Your task to perform on an android device: turn off location history Image 0: 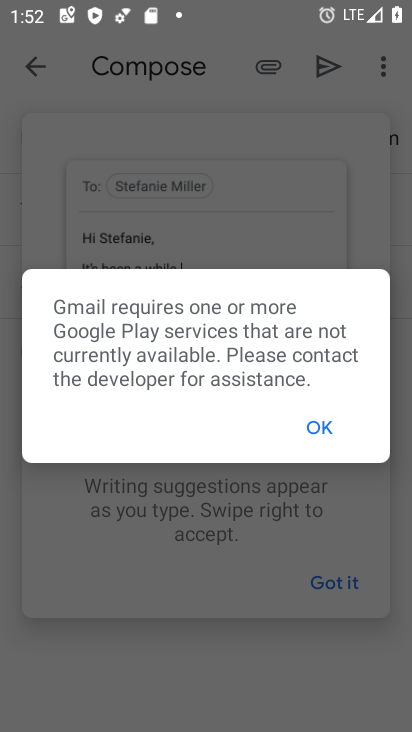
Step 0: press home button
Your task to perform on an android device: turn off location history Image 1: 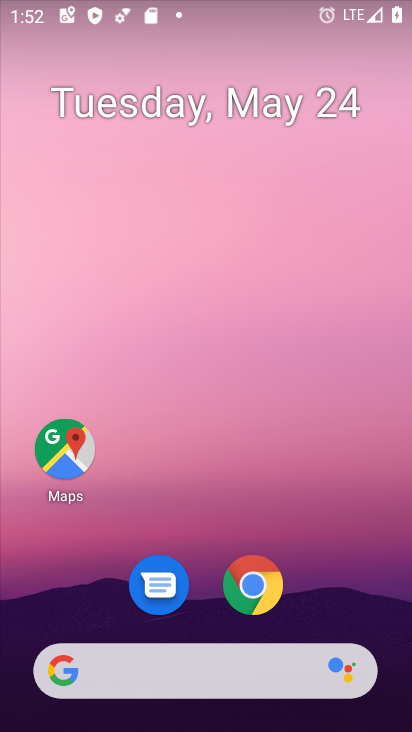
Step 1: drag from (220, 509) to (257, 50)
Your task to perform on an android device: turn off location history Image 2: 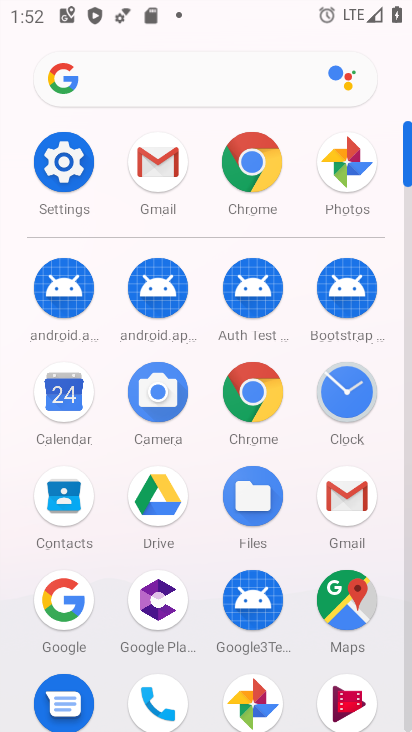
Step 2: click (60, 157)
Your task to perform on an android device: turn off location history Image 3: 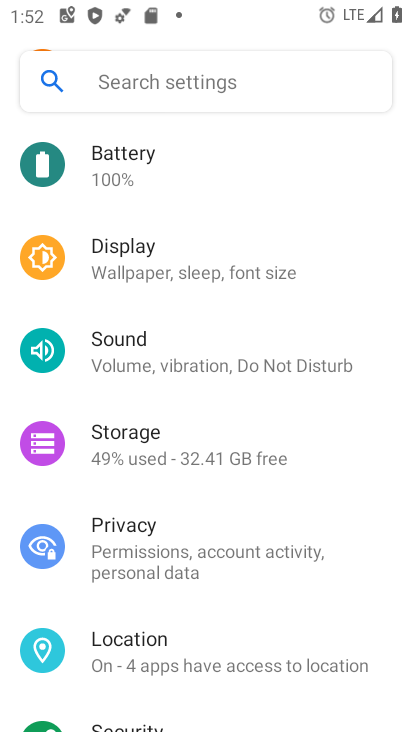
Step 3: click (244, 645)
Your task to perform on an android device: turn off location history Image 4: 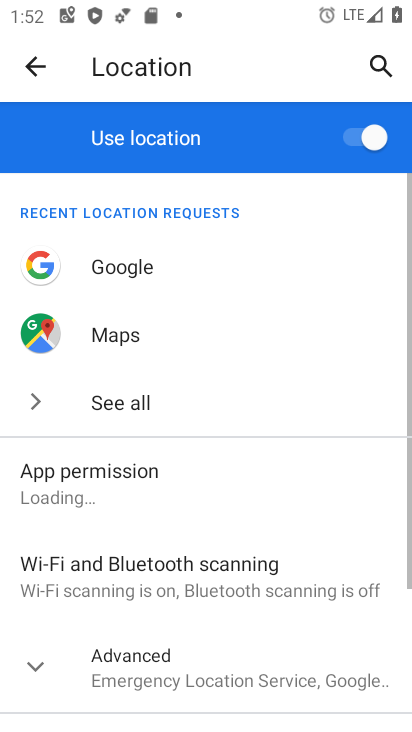
Step 4: drag from (246, 501) to (305, 191)
Your task to perform on an android device: turn off location history Image 5: 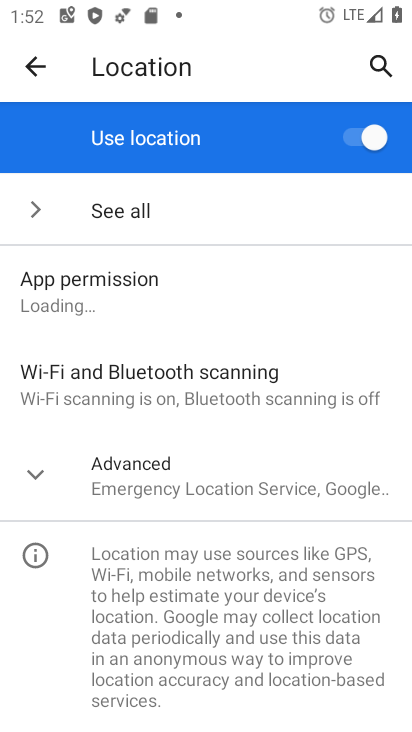
Step 5: click (37, 470)
Your task to perform on an android device: turn off location history Image 6: 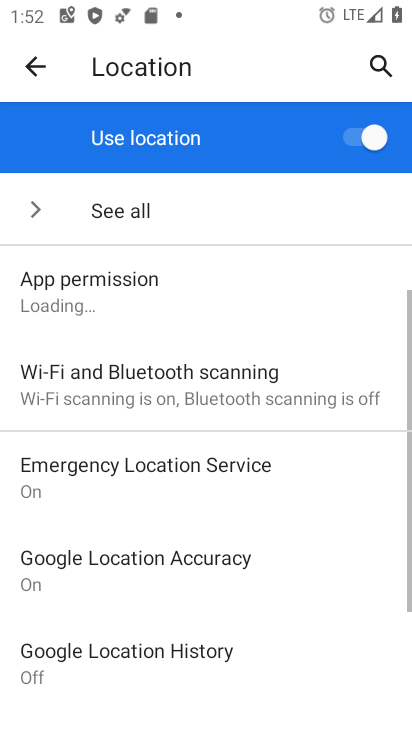
Step 6: task complete